Your task to perform on an android device: turn on the 24-hour format for clock Image 0: 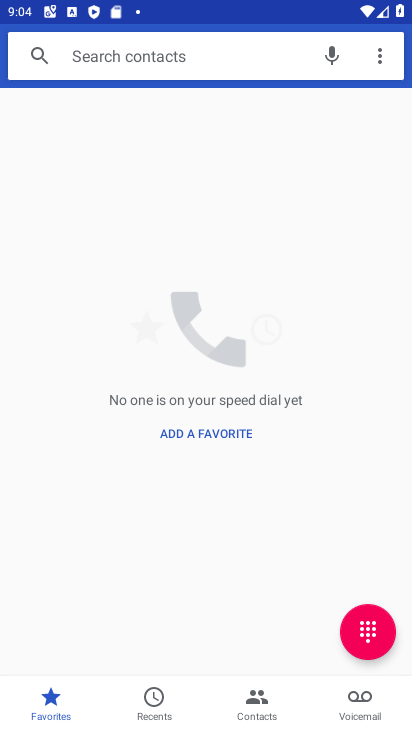
Step 0: press home button
Your task to perform on an android device: turn on the 24-hour format for clock Image 1: 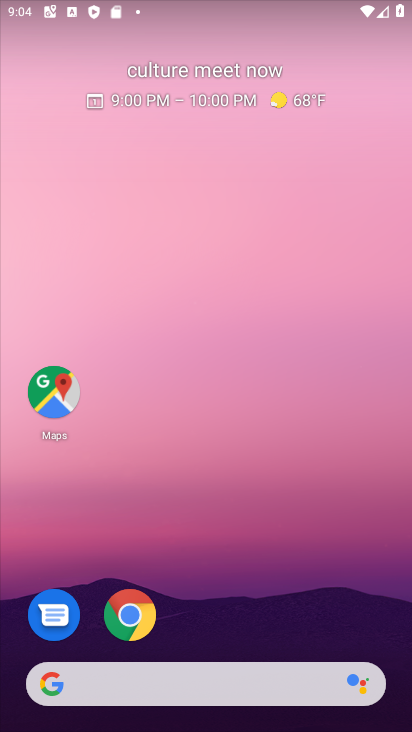
Step 1: drag from (398, 699) to (329, 108)
Your task to perform on an android device: turn on the 24-hour format for clock Image 2: 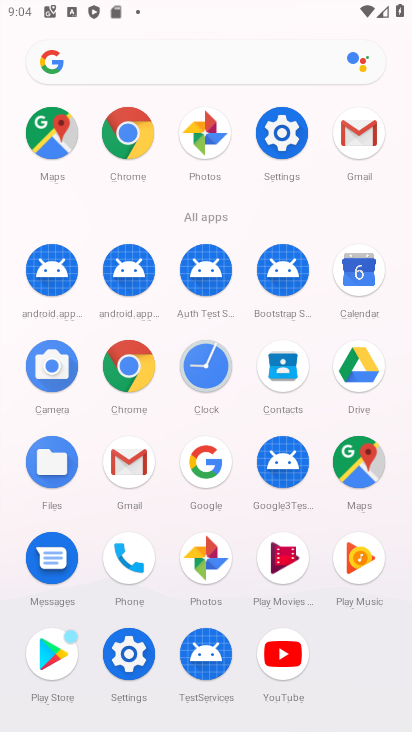
Step 2: click (206, 361)
Your task to perform on an android device: turn on the 24-hour format for clock Image 3: 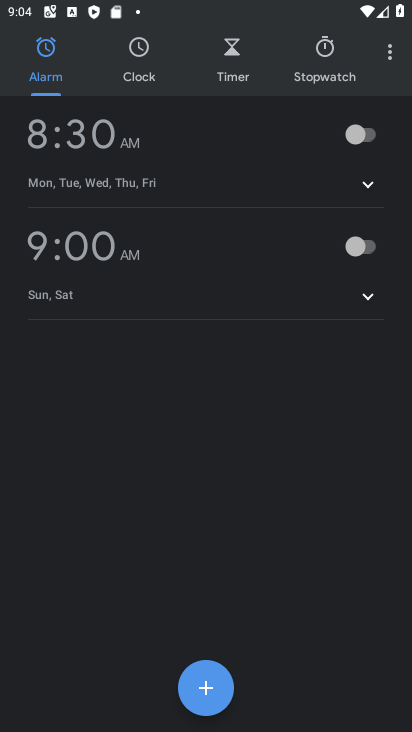
Step 3: click (389, 56)
Your task to perform on an android device: turn on the 24-hour format for clock Image 4: 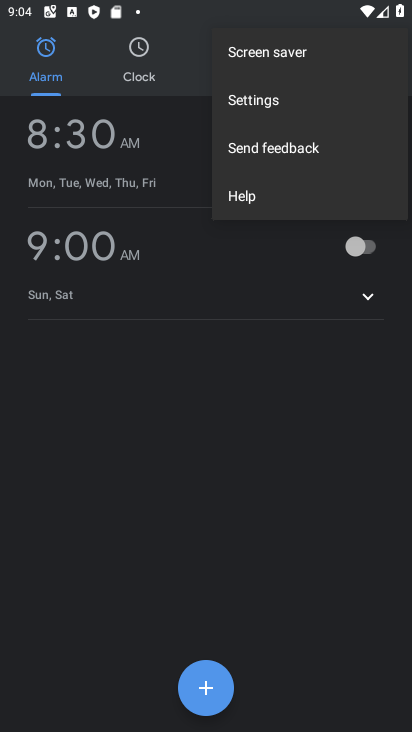
Step 4: click (246, 103)
Your task to perform on an android device: turn on the 24-hour format for clock Image 5: 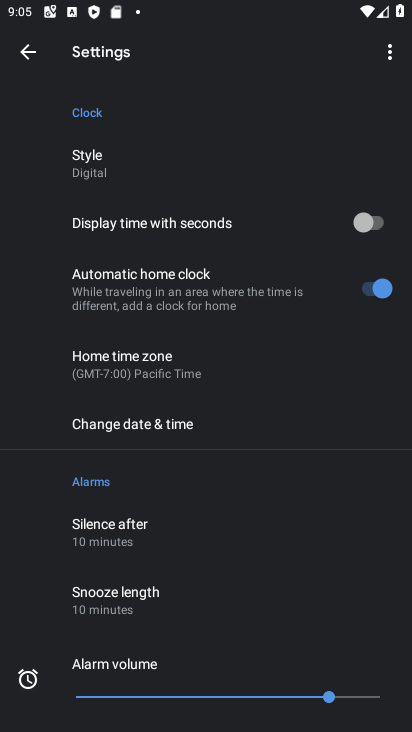
Step 5: click (131, 428)
Your task to perform on an android device: turn on the 24-hour format for clock Image 6: 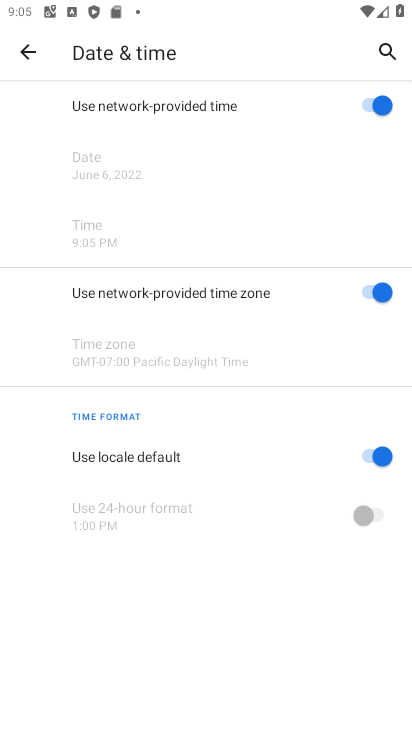
Step 6: click (367, 456)
Your task to perform on an android device: turn on the 24-hour format for clock Image 7: 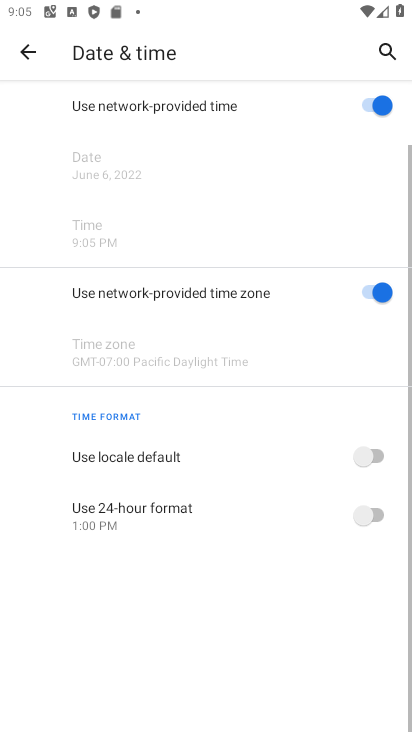
Step 7: click (371, 515)
Your task to perform on an android device: turn on the 24-hour format for clock Image 8: 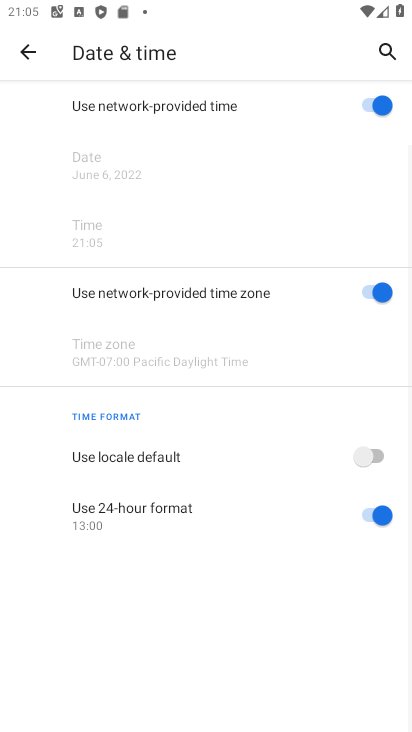
Step 8: task complete